Your task to perform on an android device: Go to internet settings Image 0: 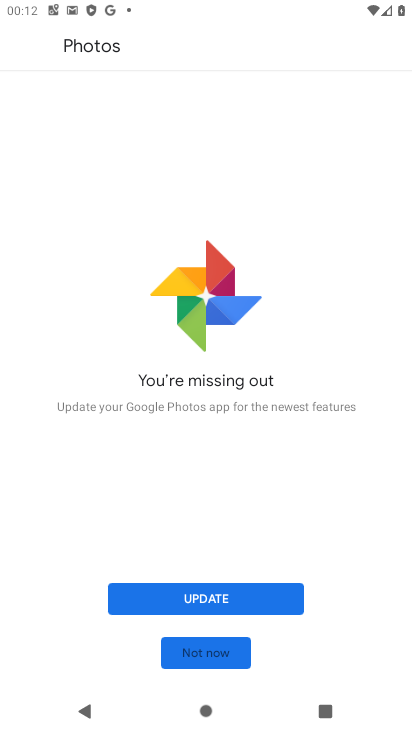
Step 0: press home button
Your task to perform on an android device: Go to internet settings Image 1: 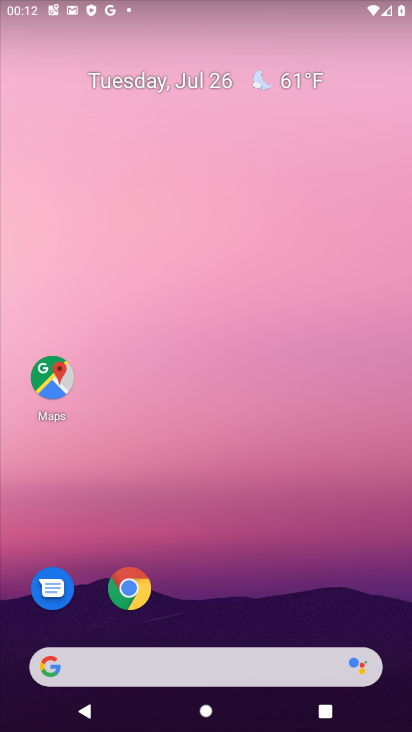
Step 1: drag from (219, 617) to (136, 112)
Your task to perform on an android device: Go to internet settings Image 2: 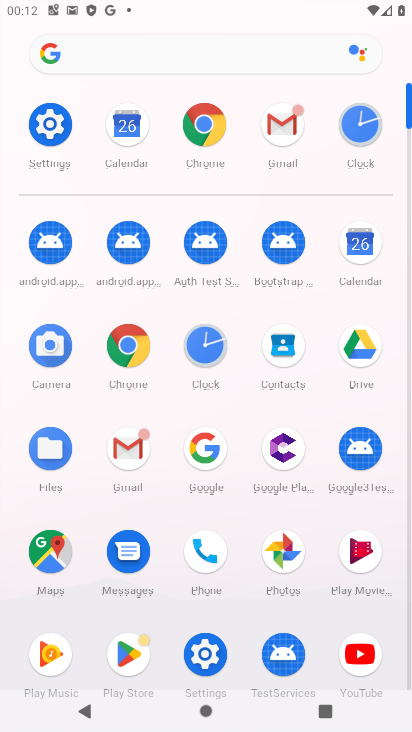
Step 2: click (46, 116)
Your task to perform on an android device: Go to internet settings Image 3: 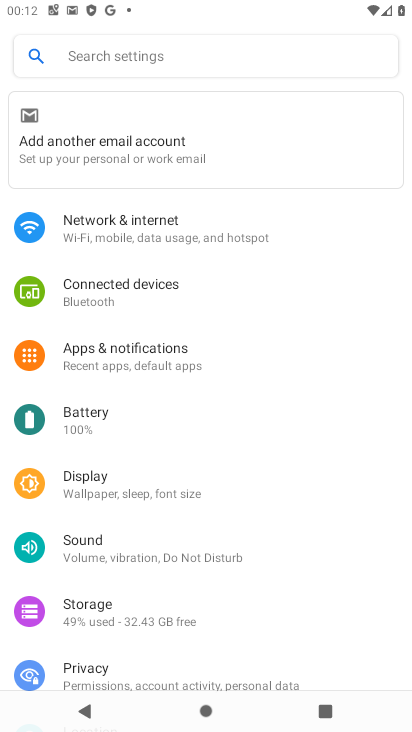
Step 3: click (164, 225)
Your task to perform on an android device: Go to internet settings Image 4: 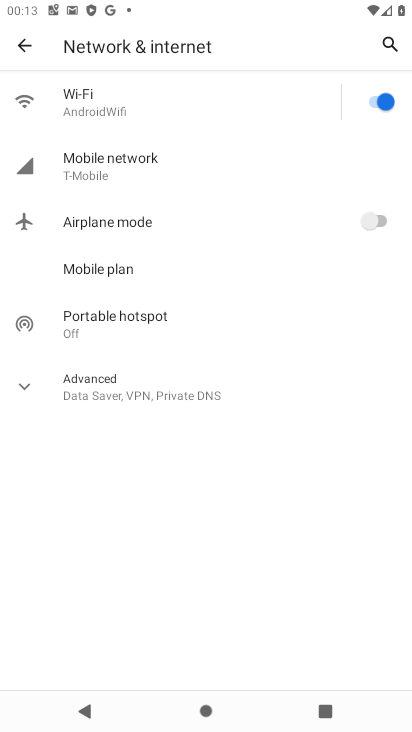
Step 4: click (23, 380)
Your task to perform on an android device: Go to internet settings Image 5: 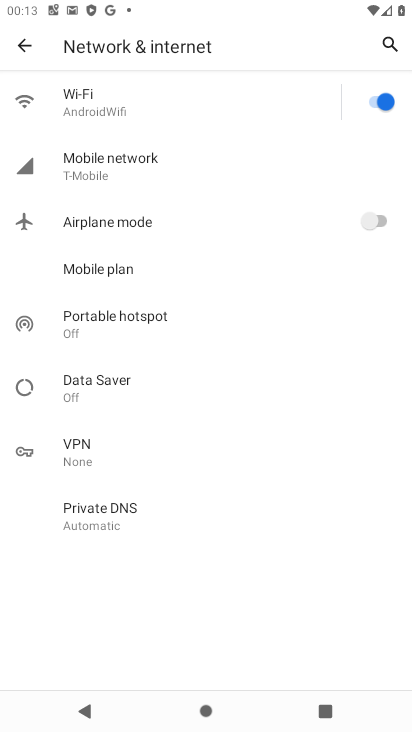
Step 5: task complete